Your task to perform on an android device: turn off notifications settings in the gmail app Image 0: 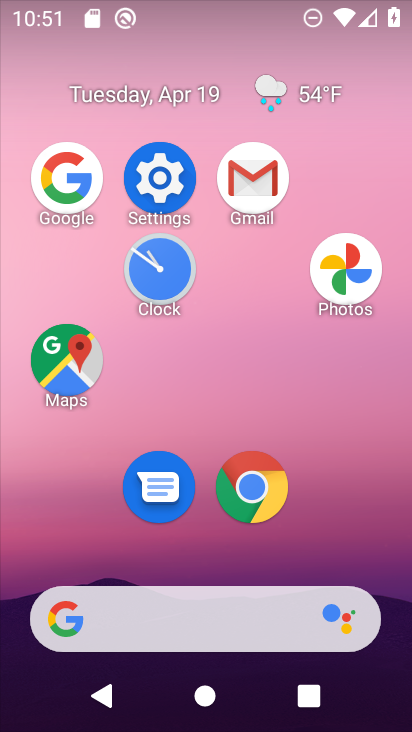
Step 0: click (262, 186)
Your task to perform on an android device: turn off notifications settings in the gmail app Image 1: 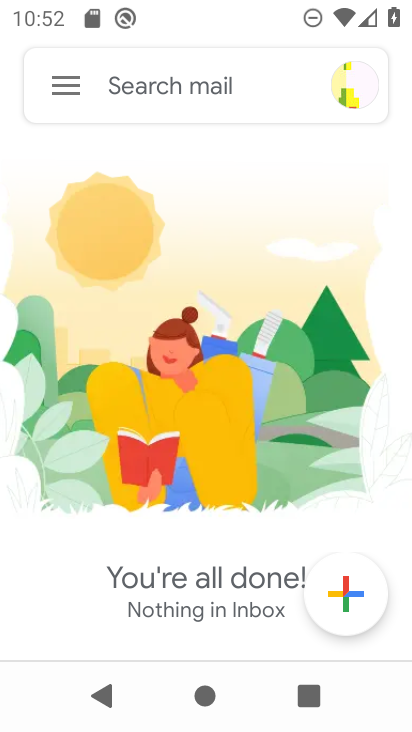
Step 1: click (81, 90)
Your task to perform on an android device: turn off notifications settings in the gmail app Image 2: 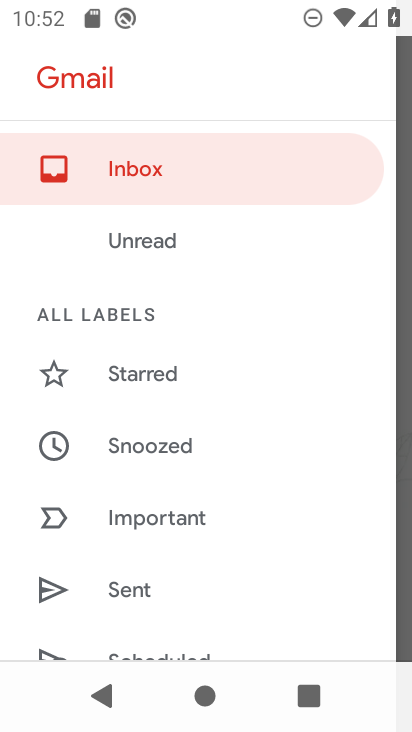
Step 2: drag from (233, 582) to (283, 102)
Your task to perform on an android device: turn off notifications settings in the gmail app Image 3: 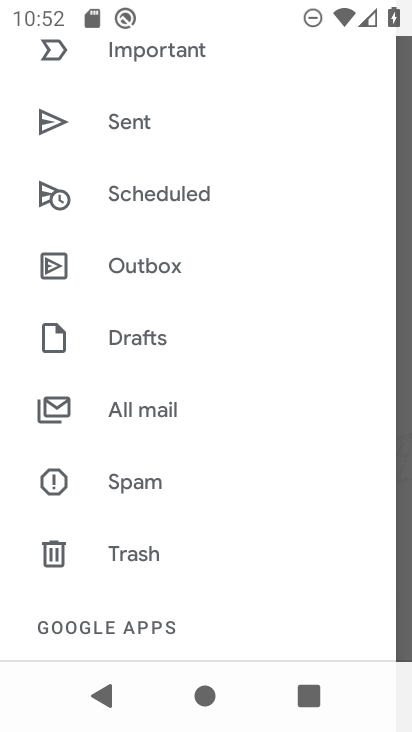
Step 3: drag from (214, 479) to (241, 134)
Your task to perform on an android device: turn off notifications settings in the gmail app Image 4: 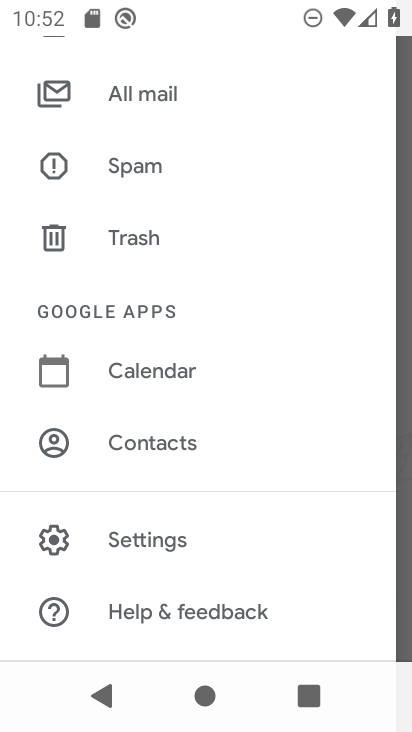
Step 4: click (188, 556)
Your task to perform on an android device: turn off notifications settings in the gmail app Image 5: 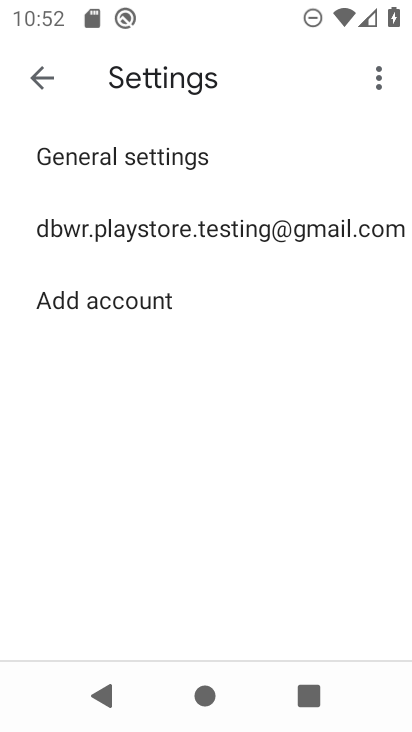
Step 5: click (248, 229)
Your task to perform on an android device: turn off notifications settings in the gmail app Image 6: 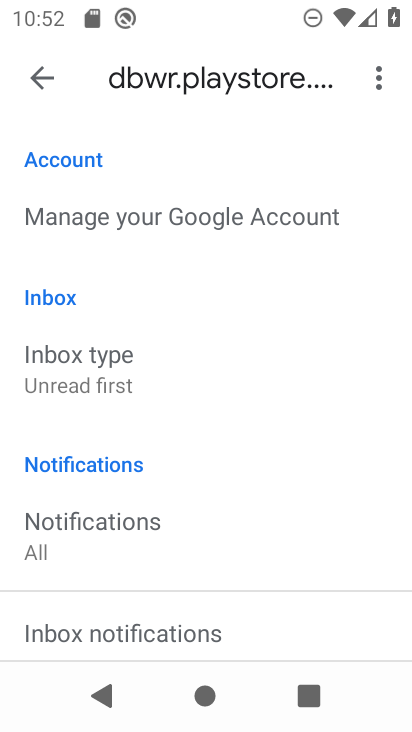
Step 6: click (193, 534)
Your task to perform on an android device: turn off notifications settings in the gmail app Image 7: 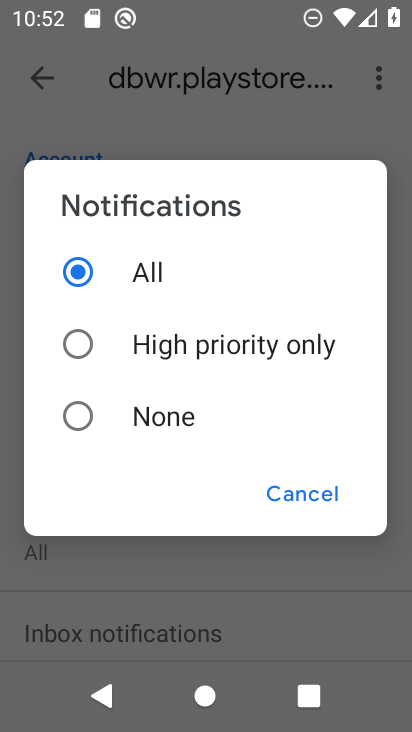
Step 7: click (174, 407)
Your task to perform on an android device: turn off notifications settings in the gmail app Image 8: 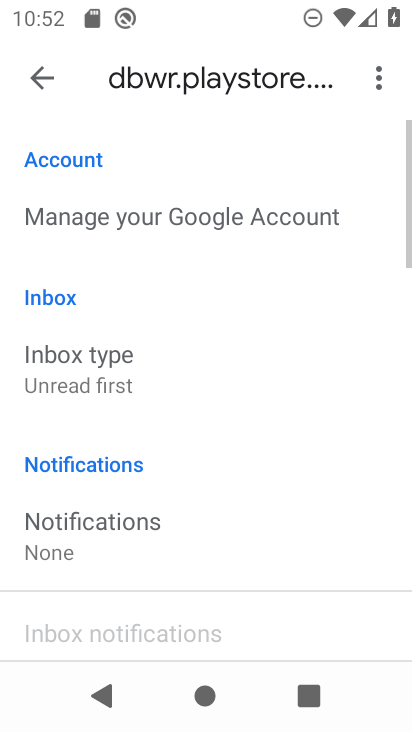
Step 8: task complete